Your task to perform on an android device: turn notification dots on Image 0: 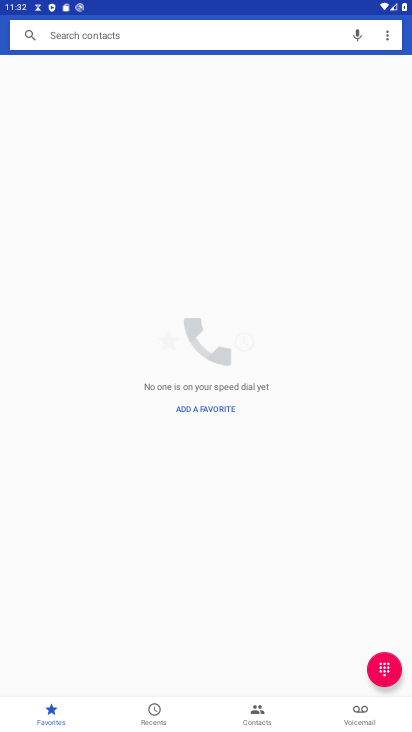
Step 0: press home button
Your task to perform on an android device: turn notification dots on Image 1: 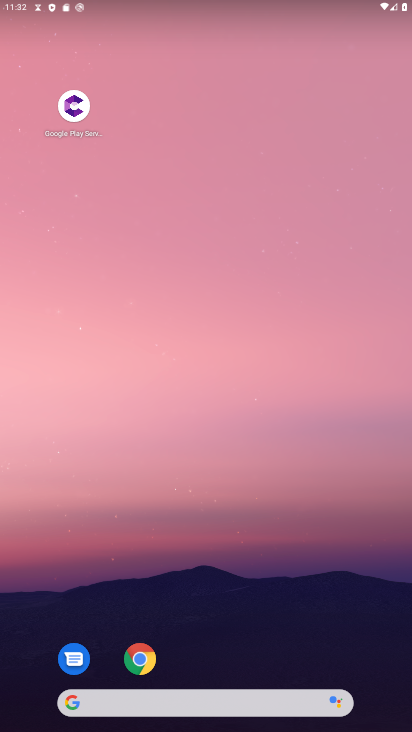
Step 1: drag from (173, 613) to (235, 1)
Your task to perform on an android device: turn notification dots on Image 2: 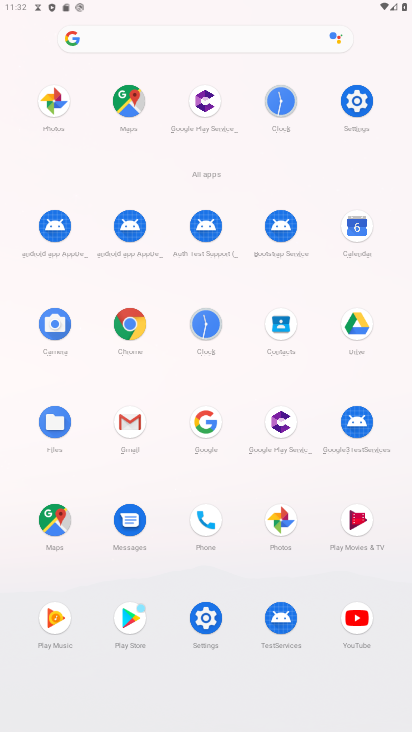
Step 2: click (207, 599)
Your task to perform on an android device: turn notification dots on Image 3: 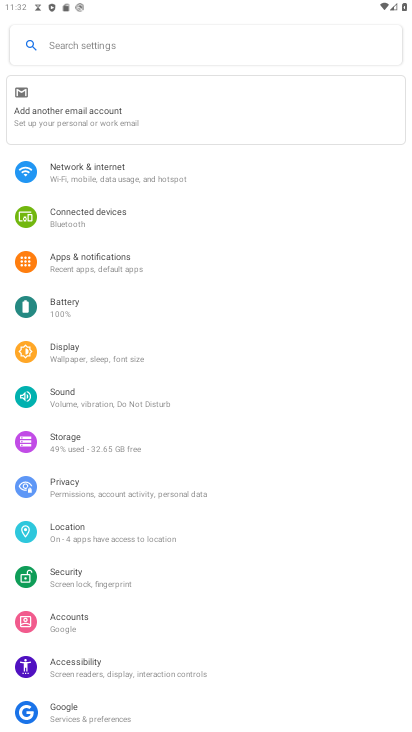
Step 3: click (101, 262)
Your task to perform on an android device: turn notification dots on Image 4: 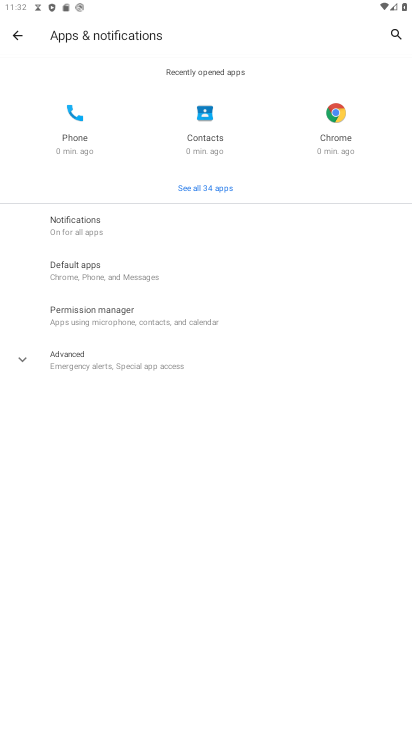
Step 4: click (186, 229)
Your task to perform on an android device: turn notification dots on Image 5: 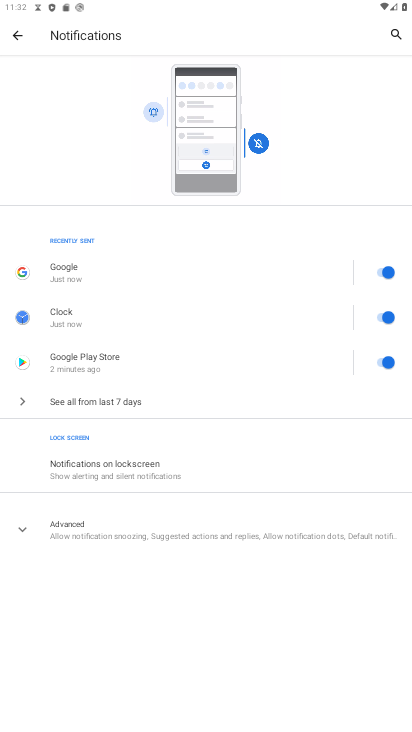
Step 5: click (126, 532)
Your task to perform on an android device: turn notification dots on Image 6: 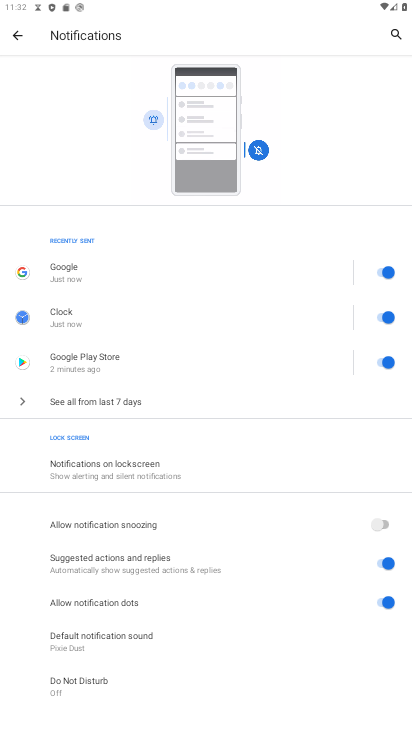
Step 6: task complete